Your task to perform on an android device: Open Youtube and go to the subscriptions tab Image 0: 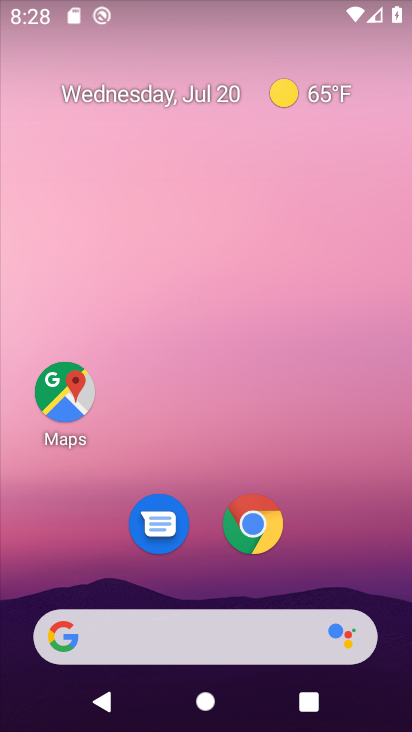
Step 0: drag from (323, 565) to (340, 43)
Your task to perform on an android device: Open Youtube and go to the subscriptions tab Image 1: 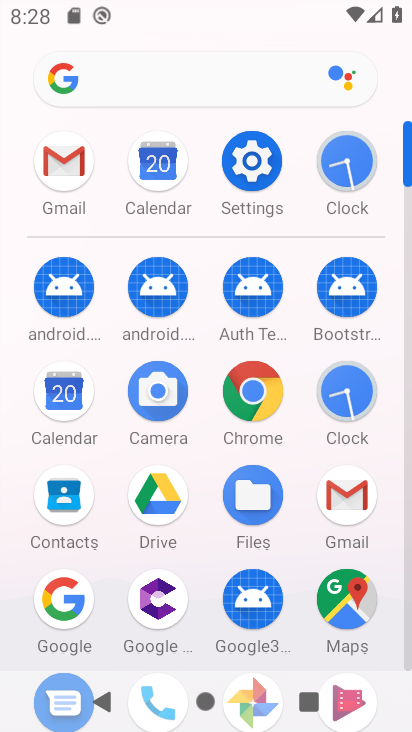
Step 1: drag from (208, 494) to (231, 99)
Your task to perform on an android device: Open Youtube and go to the subscriptions tab Image 2: 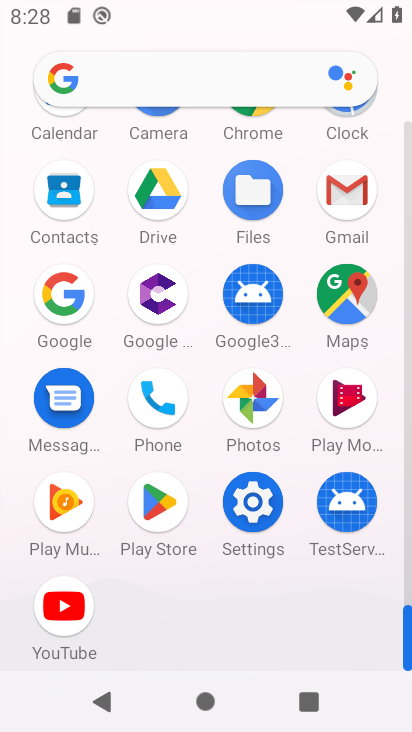
Step 2: click (65, 609)
Your task to perform on an android device: Open Youtube and go to the subscriptions tab Image 3: 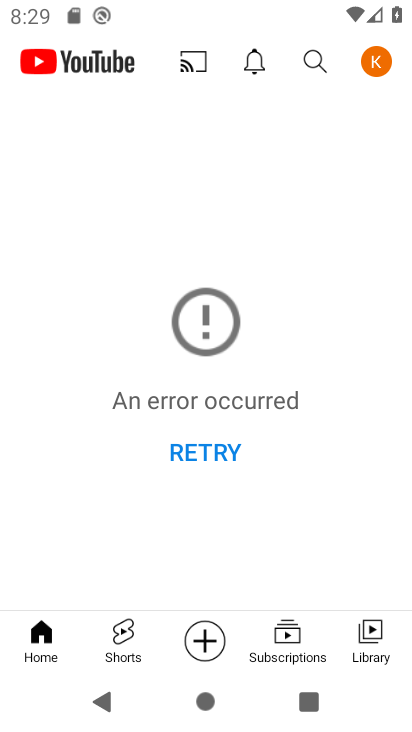
Step 3: click (284, 634)
Your task to perform on an android device: Open Youtube and go to the subscriptions tab Image 4: 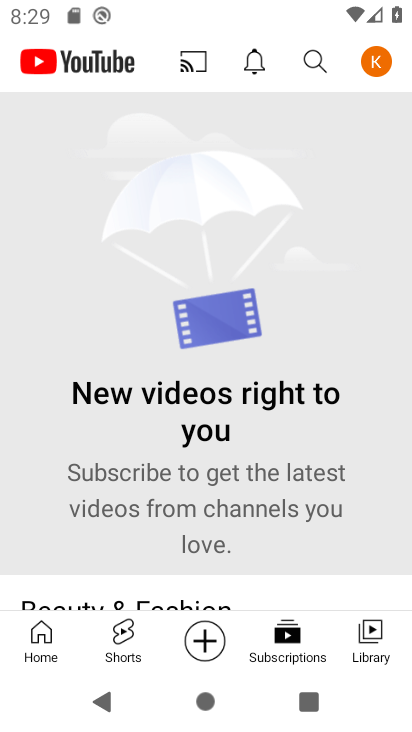
Step 4: task complete